Your task to perform on an android device: What's on my calendar tomorrow? Image 0: 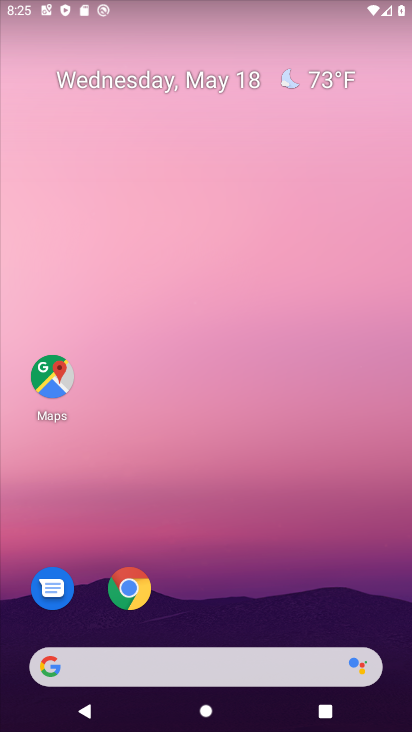
Step 0: drag from (346, 591) to (335, 215)
Your task to perform on an android device: What's on my calendar tomorrow? Image 1: 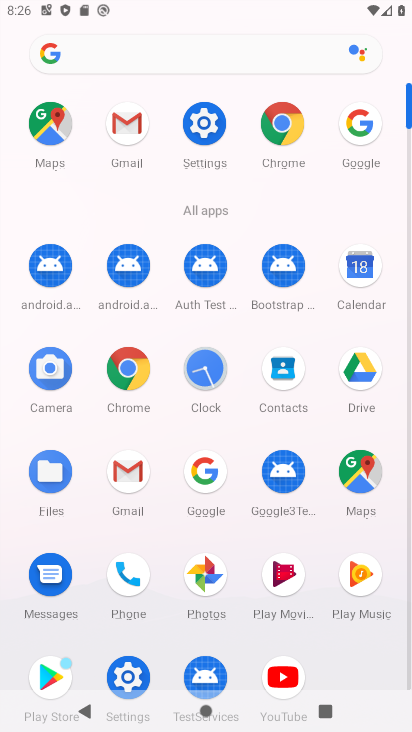
Step 1: click (366, 275)
Your task to perform on an android device: What's on my calendar tomorrow? Image 2: 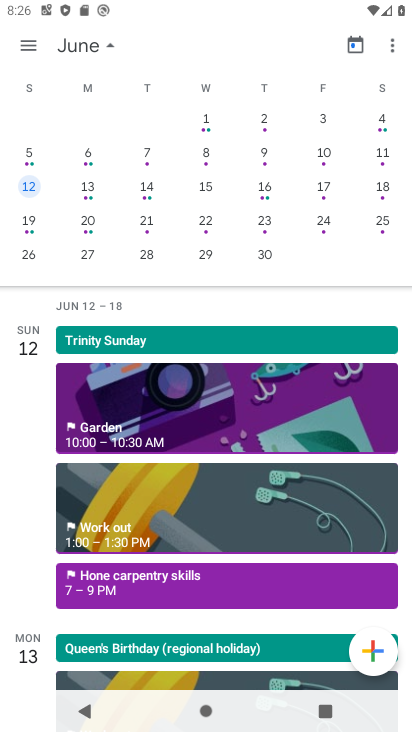
Step 2: click (83, 41)
Your task to perform on an android device: What's on my calendar tomorrow? Image 3: 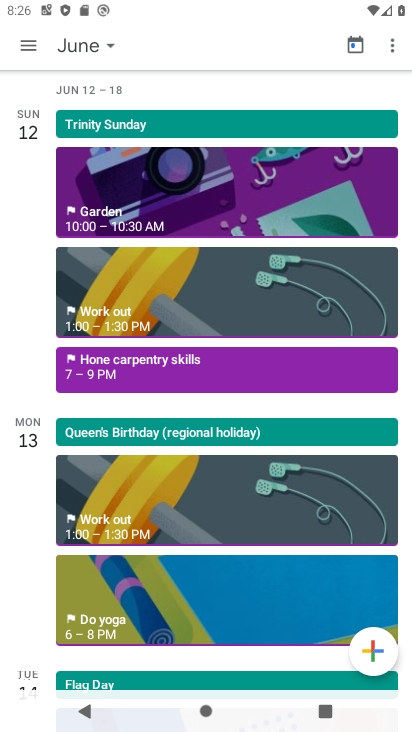
Step 3: click (84, 48)
Your task to perform on an android device: What's on my calendar tomorrow? Image 4: 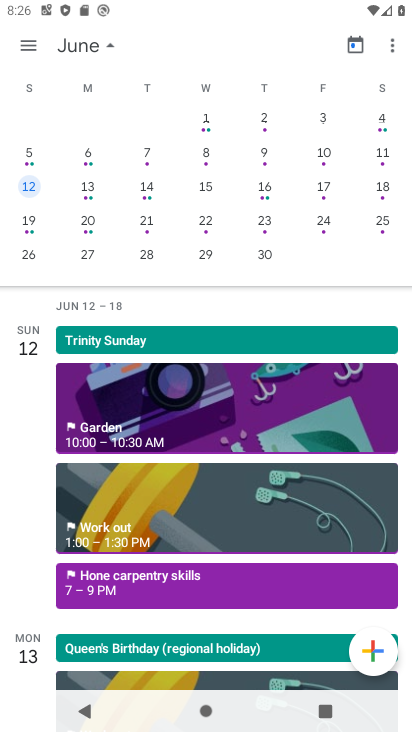
Step 4: drag from (76, 134) to (410, 143)
Your task to perform on an android device: What's on my calendar tomorrow? Image 5: 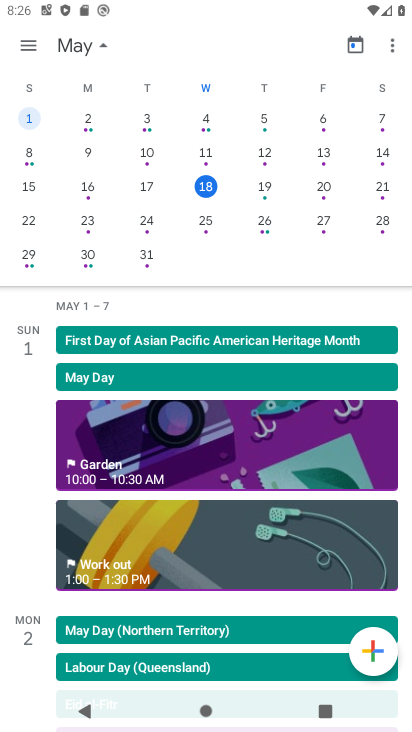
Step 5: click (269, 184)
Your task to perform on an android device: What's on my calendar tomorrow? Image 6: 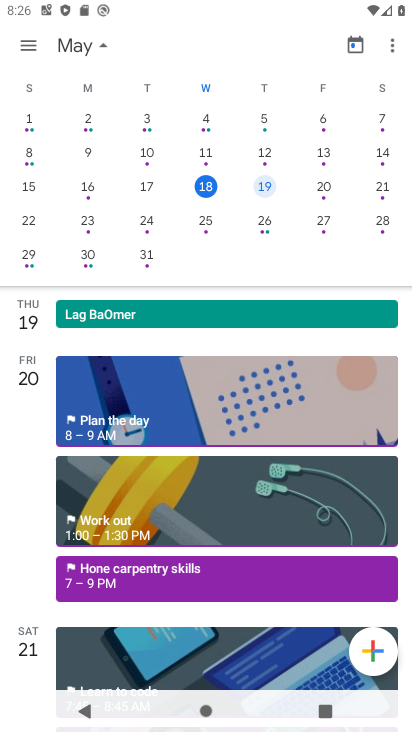
Step 6: task complete